Your task to perform on an android device: Open calendar and show me the fourth week of next month Image 0: 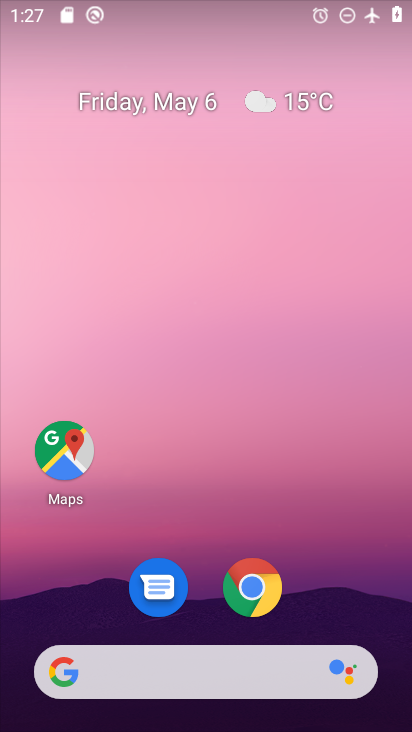
Step 0: drag from (337, 579) to (273, 47)
Your task to perform on an android device: Open calendar and show me the fourth week of next month Image 1: 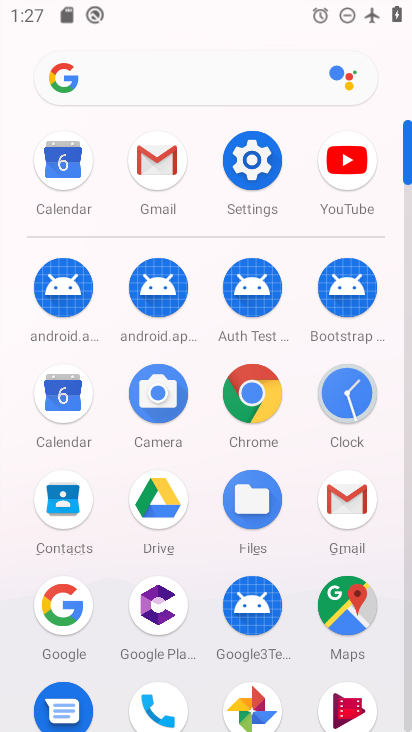
Step 1: click (67, 390)
Your task to perform on an android device: Open calendar and show me the fourth week of next month Image 2: 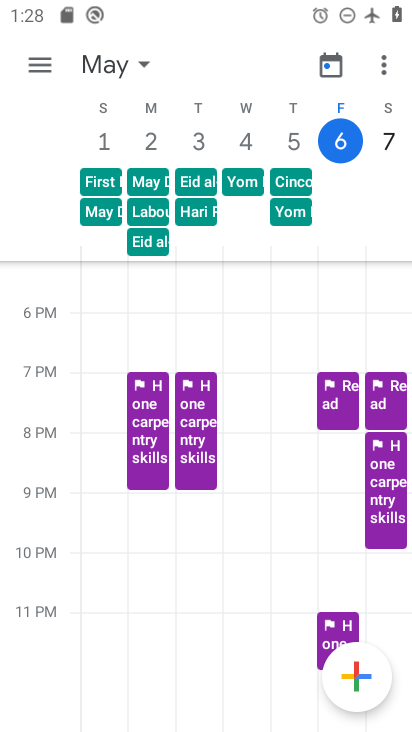
Step 2: click (131, 61)
Your task to perform on an android device: Open calendar and show me the fourth week of next month Image 3: 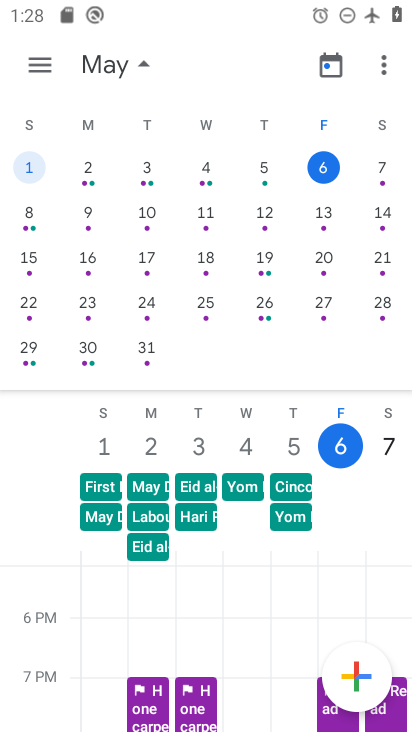
Step 3: drag from (359, 242) to (6, 287)
Your task to perform on an android device: Open calendar and show me the fourth week of next month Image 4: 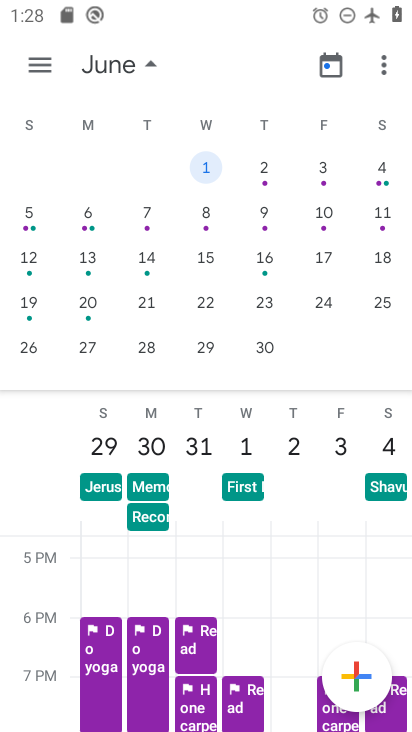
Step 4: click (41, 306)
Your task to perform on an android device: Open calendar and show me the fourth week of next month Image 5: 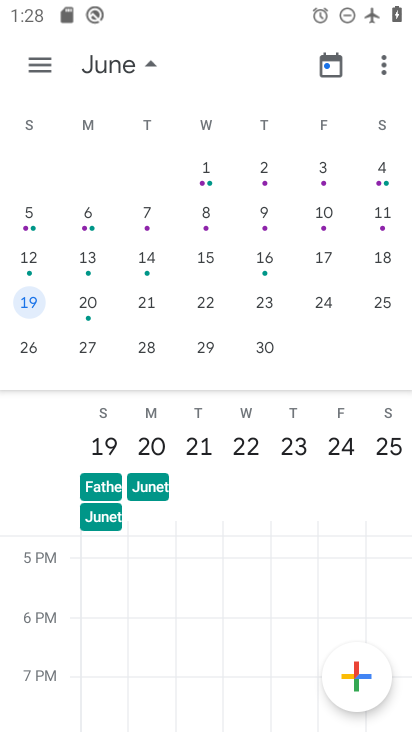
Step 5: task complete